Your task to perform on an android device: Open settings Image 0: 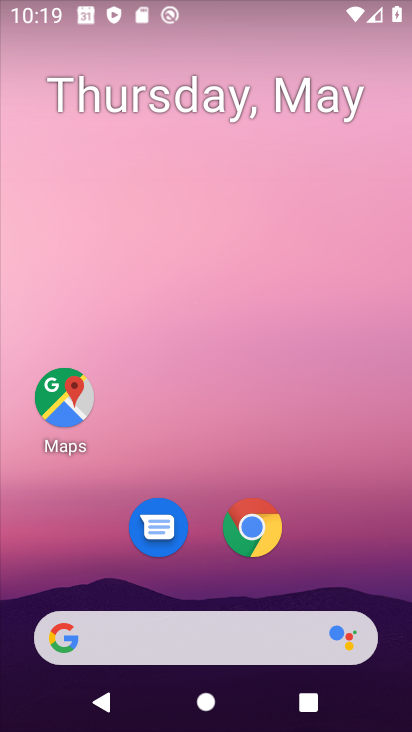
Step 0: drag from (229, 726) to (228, 68)
Your task to perform on an android device: Open settings Image 1: 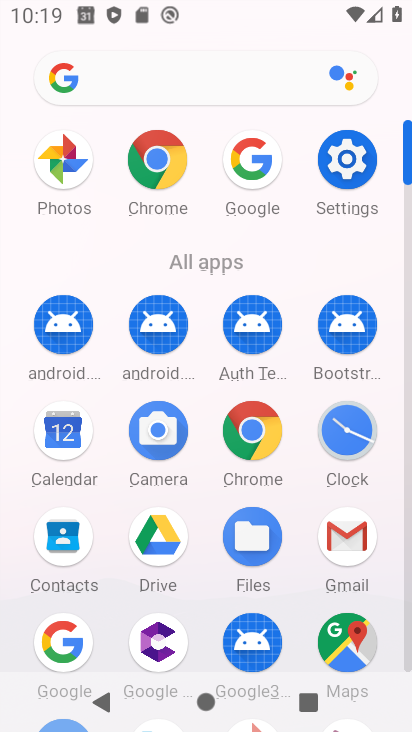
Step 1: click (342, 161)
Your task to perform on an android device: Open settings Image 2: 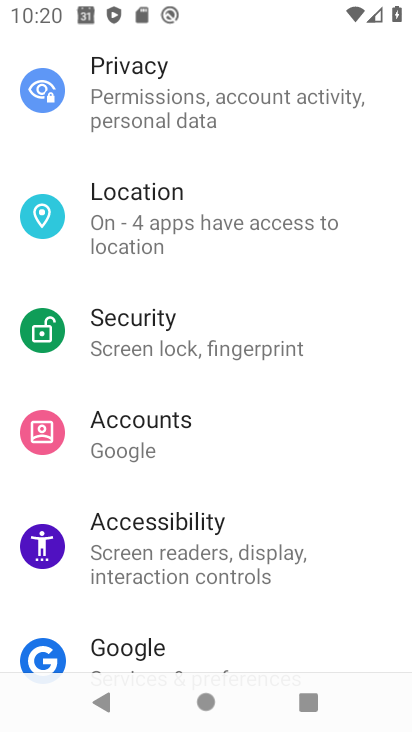
Step 2: task complete